Your task to perform on an android device: What is the news today? Image 0: 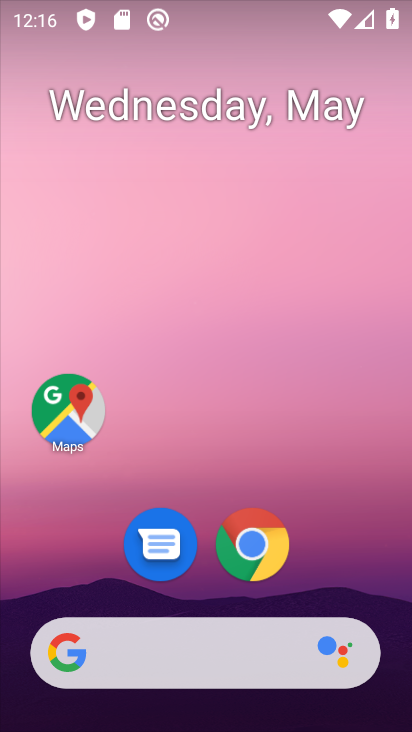
Step 0: drag from (365, 553) to (339, 131)
Your task to perform on an android device: What is the news today? Image 1: 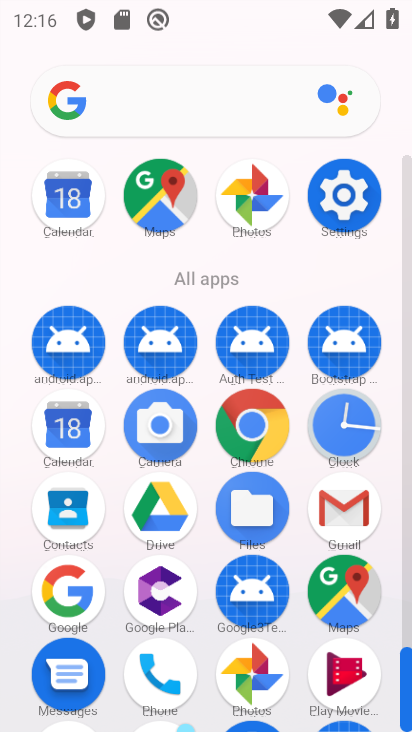
Step 1: press home button
Your task to perform on an android device: What is the news today? Image 2: 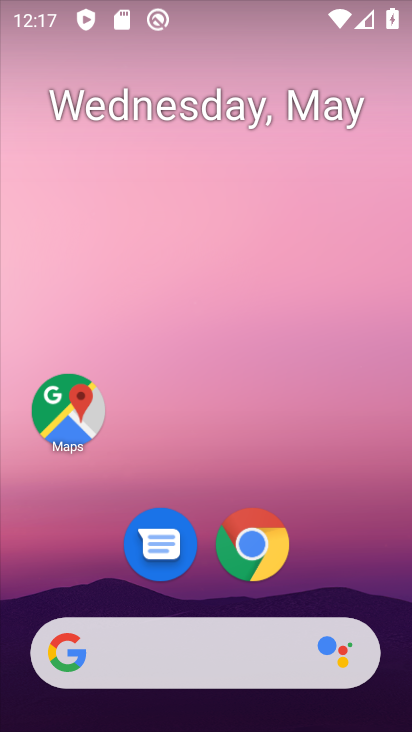
Step 2: click (263, 560)
Your task to perform on an android device: What is the news today? Image 3: 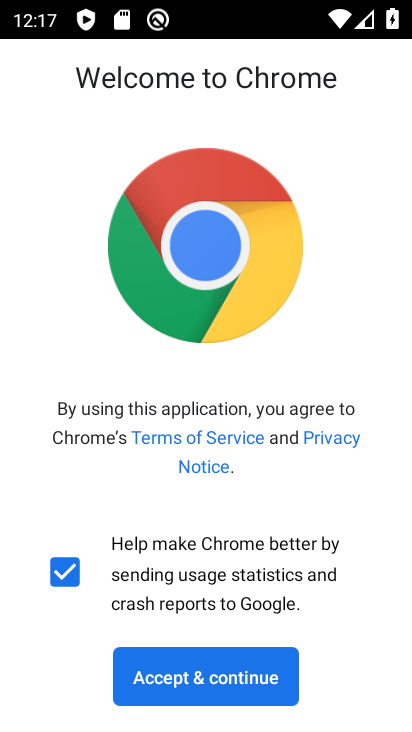
Step 3: click (245, 672)
Your task to perform on an android device: What is the news today? Image 4: 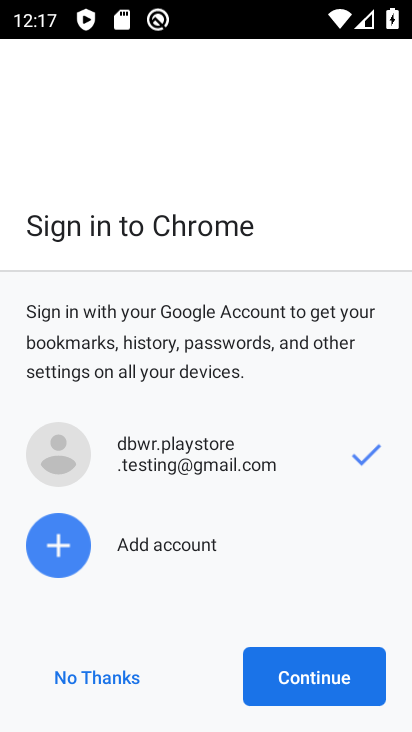
Step 4: click (298, 669)
Your task to perform on an android device: What is the news today? Image 5: 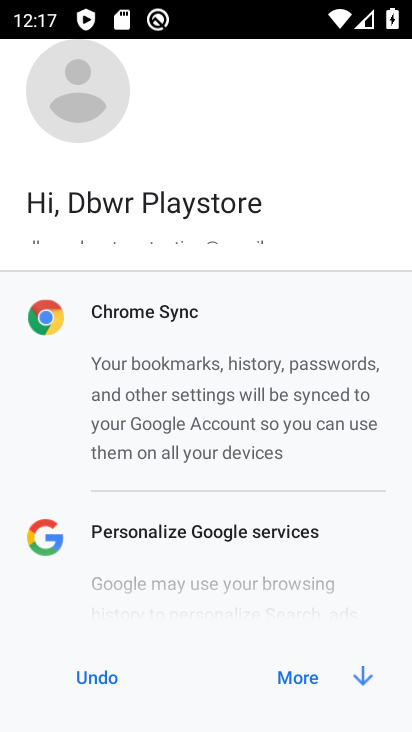
Step 5: click (298, 669)
Your task to perform on an android device: What is the news today? Image 6: 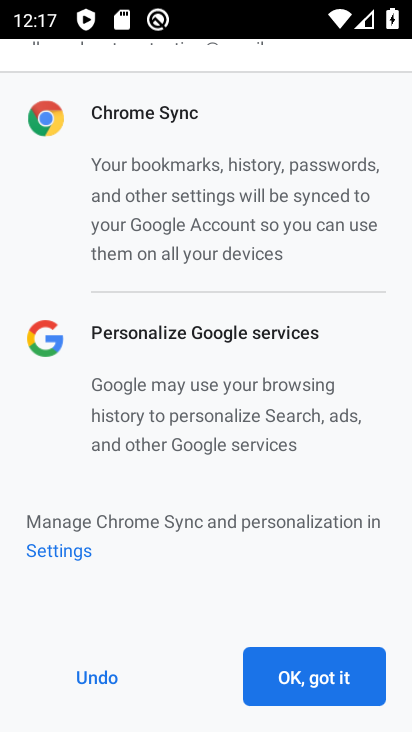
Step 6: click (298, 669)
Your task to perform on an android device: What is the news today? Image 7: 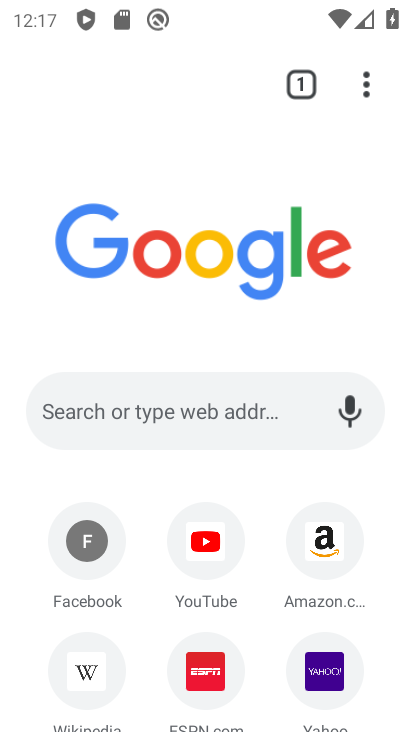
Step 7: click (212, 407)
Your task to perform on an android device: What is the news today? Image 8: 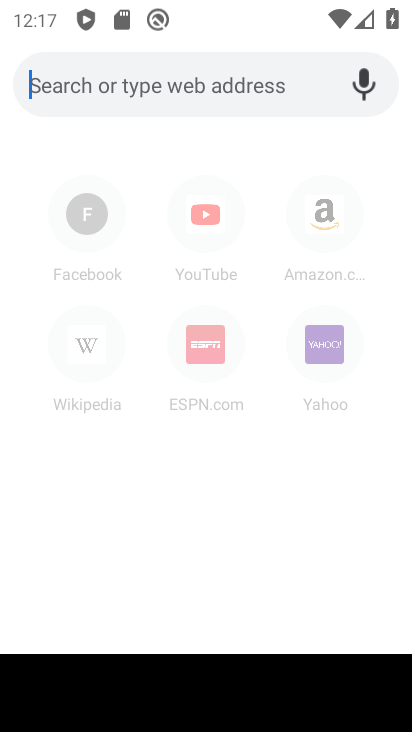
Step 8: type "news"
Your task to perform on an android device: What is the news today? Image 9: 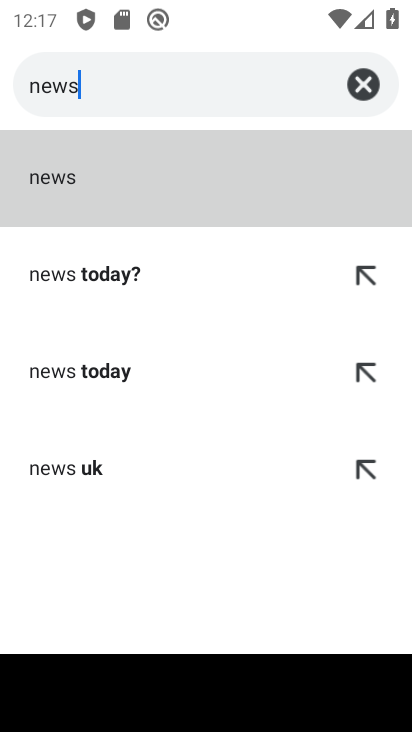
Step 9: click (47, 177)
Your task to perform on an android device: What is the news today? Image 10: 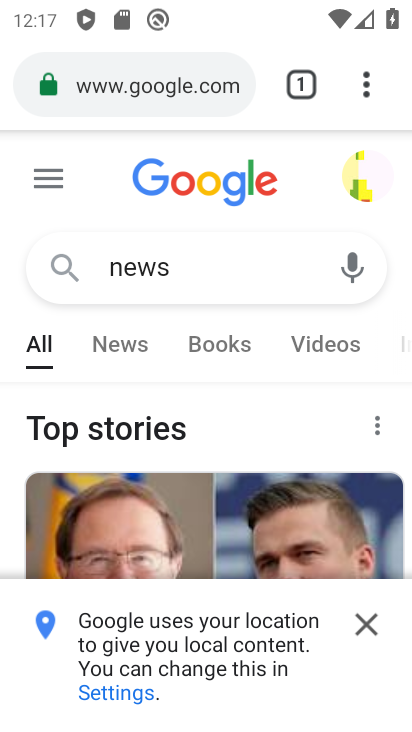
Step 10: click (126, 349)
Your task to perform on an android device: What is the news today? Image 11: 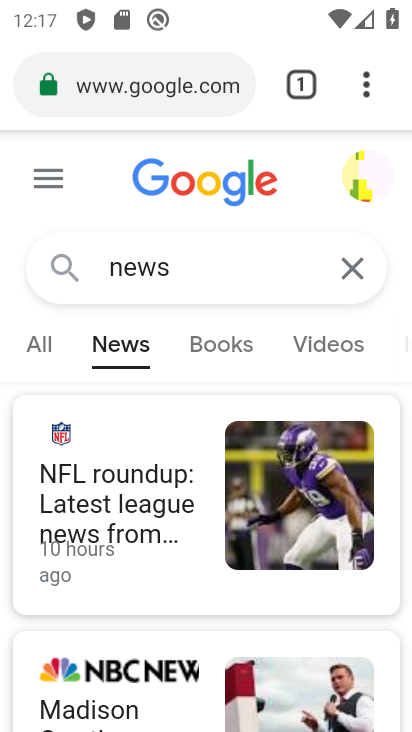
Step 11: task complete